Your task to perform on an android device: Open ESPN.com Image 0: 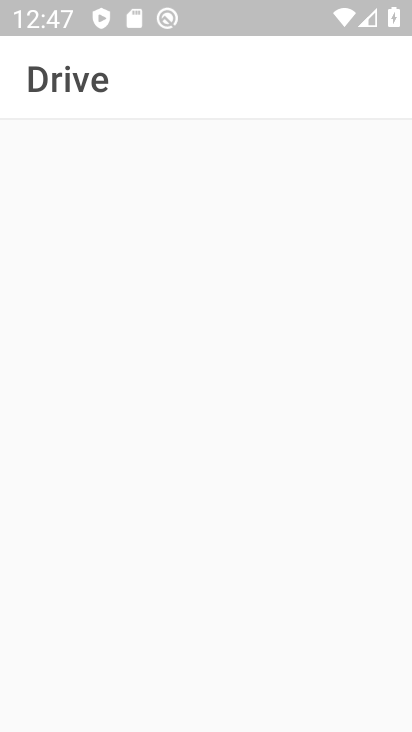
Step 0: press home button
Your task to perform on an android device: Open ESPN.com Image 1: 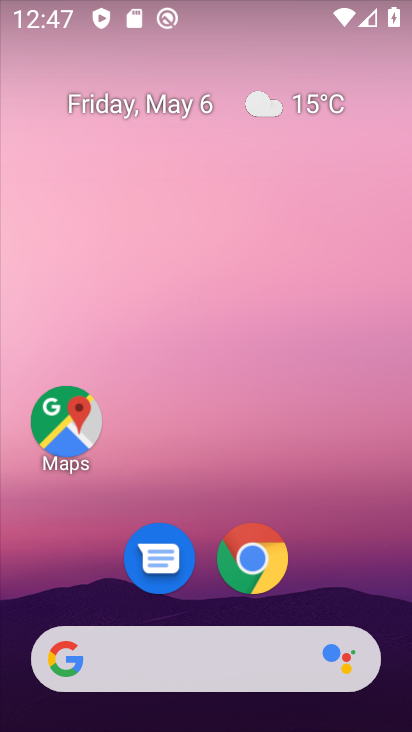
Step 1: click (254, 560)
Your task to perform on an android device: Open ESPN.com Image 2: 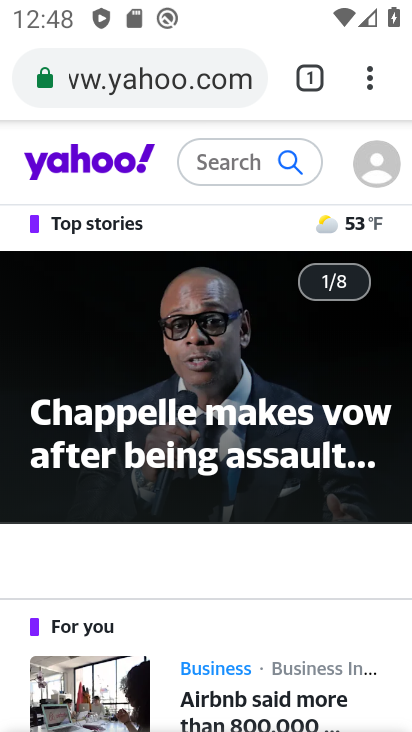
Step 2: drag from (372, 79) to (96, 147)
Your task to perform on an android device: Open ESPN.com Image 3: 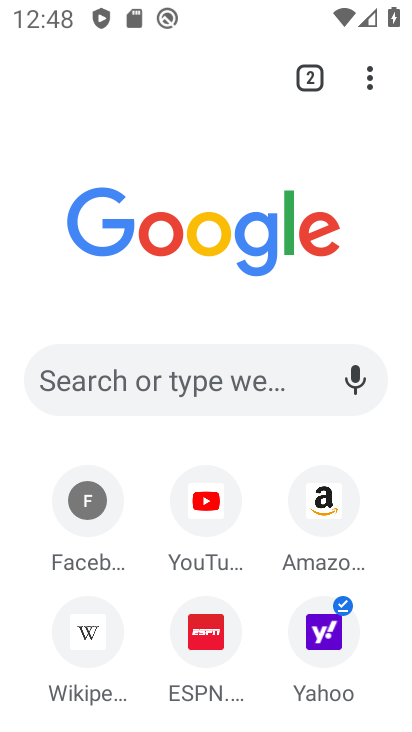
Step 3: click (210, 617)
Your task to perform on an android device: Open ESPN.com Image 4: 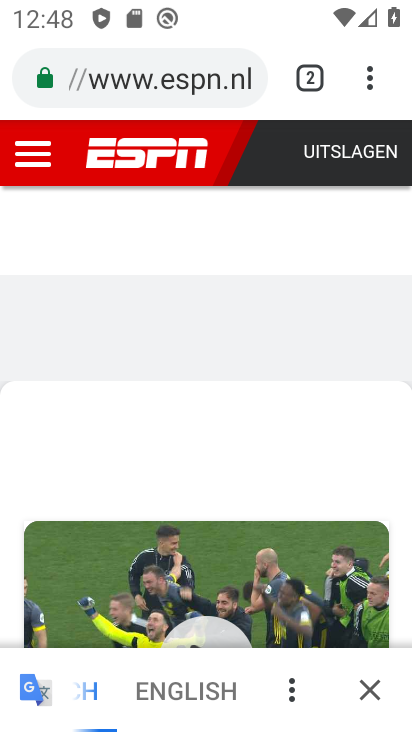
Step 4: task complete